Your task to perform on an android device: Open sound settings Image 0: 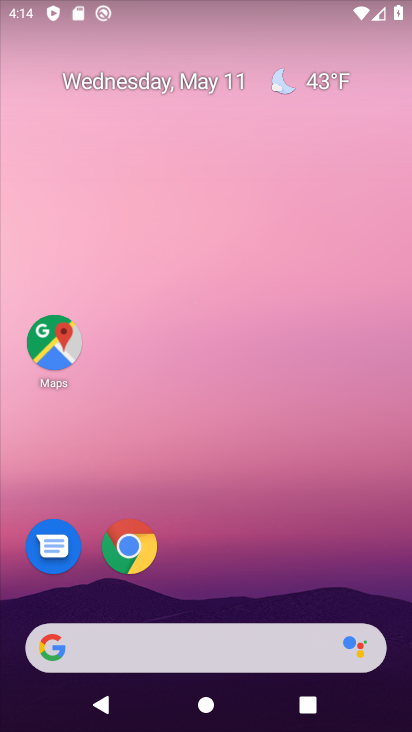
Step 0: drag from (249, 616) to (221, 162)
Your task to perform on an android device: Open sound settings Image 1: 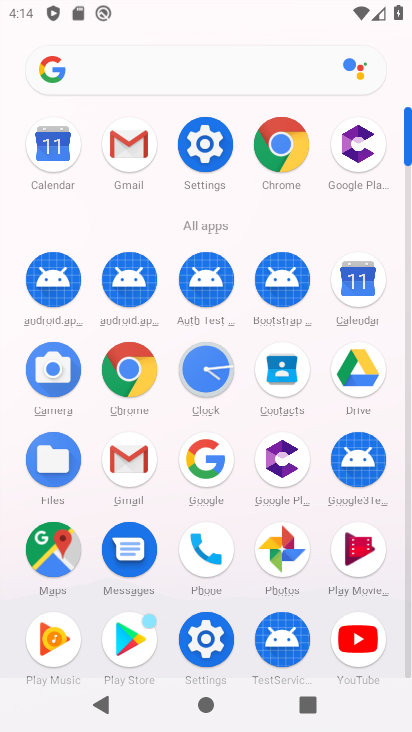
Step 1: click (209, 154)
Your task to perform on an android device: Open sound settings Image 2: 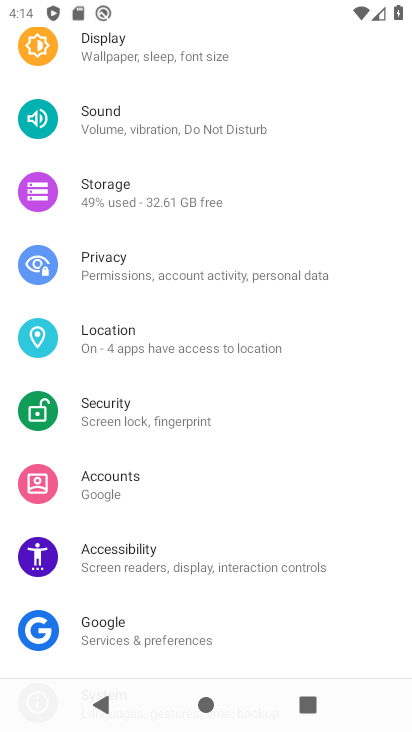
Step 2: click (99, 109)
Your task to perform on an android device: Open sound settings Image 3: 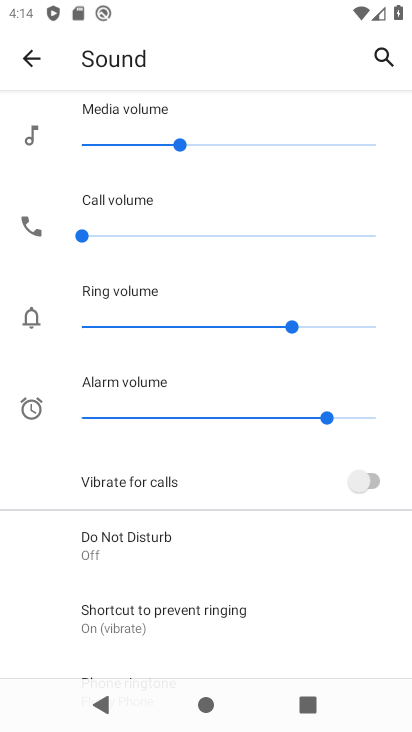
Step 3: drag from (176, 634) to (171, 197)
Your task to perform on an android device: Open sound settings Image 4: 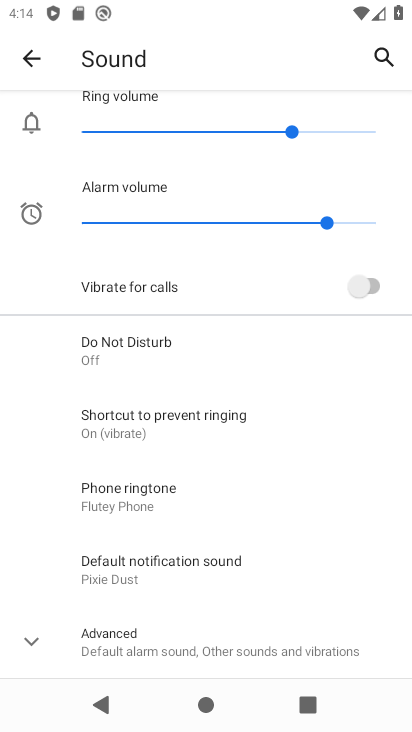
Step 4: click (121, 641)
Your task to perform on an android device: Open sound settings Image 5: 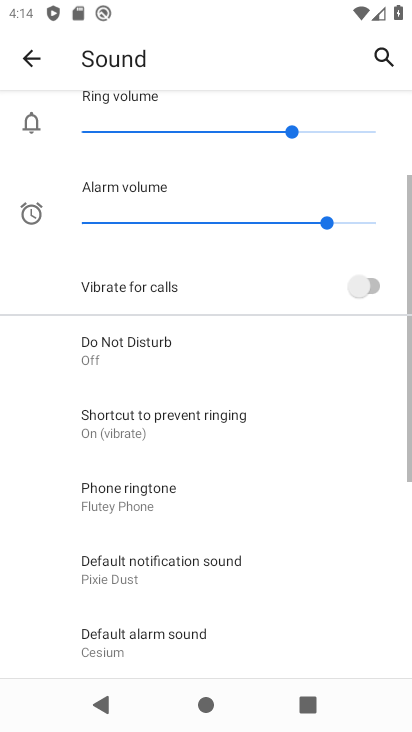
Step 5: task complete